Your task to perform on an android device: Open Reddit.com Image 0: 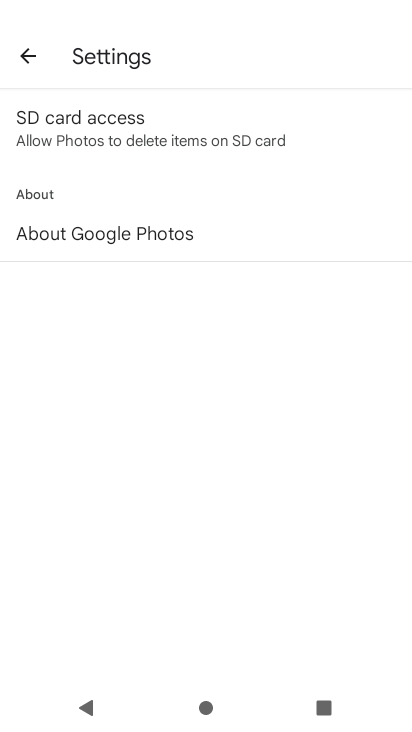
Step 0: press home button
Your task to perform on an android device: Open Reddit.com Image 1: 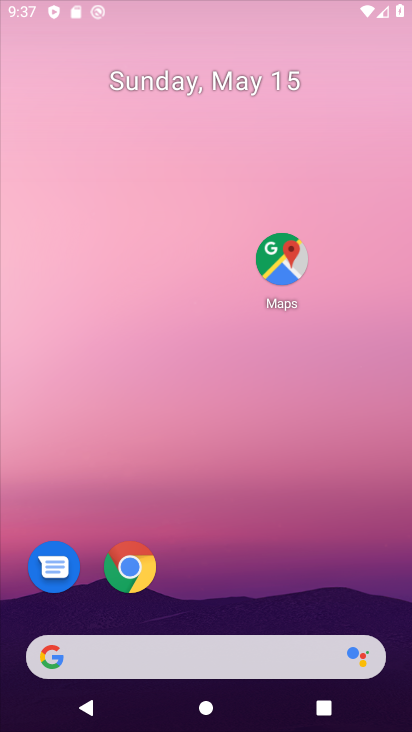
Step 1: drag from (241, 572) to (240, 80)
Your task to perform on an android device: Open Reddit.com Image 2: 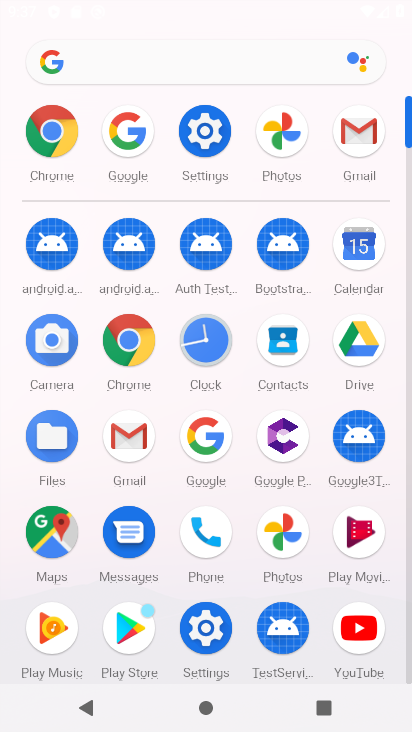
Step 2: click (212, 435)
Your task to perform on an android device: Open Reddit.com Image 3: 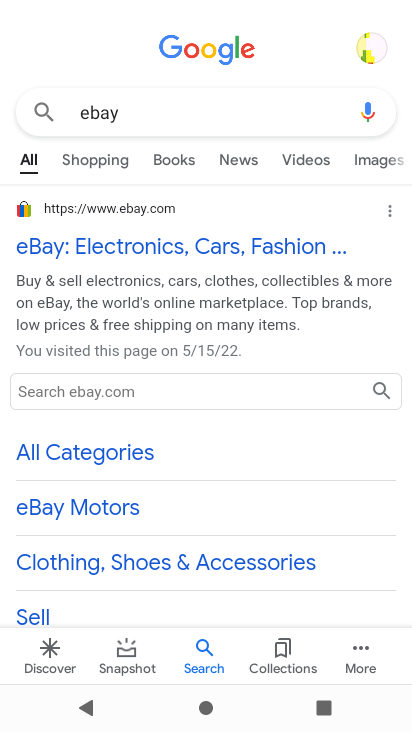
Step 3: click (143, 113)
Your task to perform on an android device: Open Reddit.com Image 4: 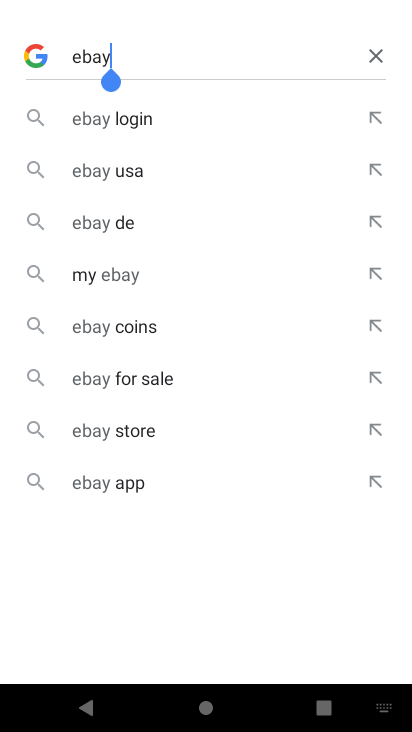
Step 4: click (372, 55)
Your task to perform on an android device: Open Reddit.com Image 5: 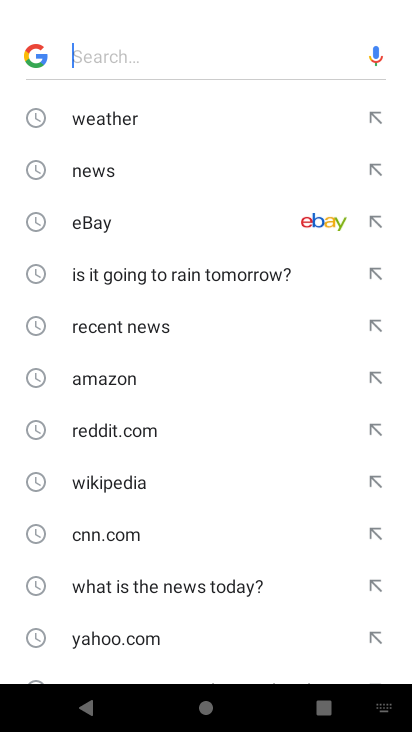
Step 5: drag from (186, 539) to (202, 274)
Your task to perform on an android device: Open Reddit.com Image 6: 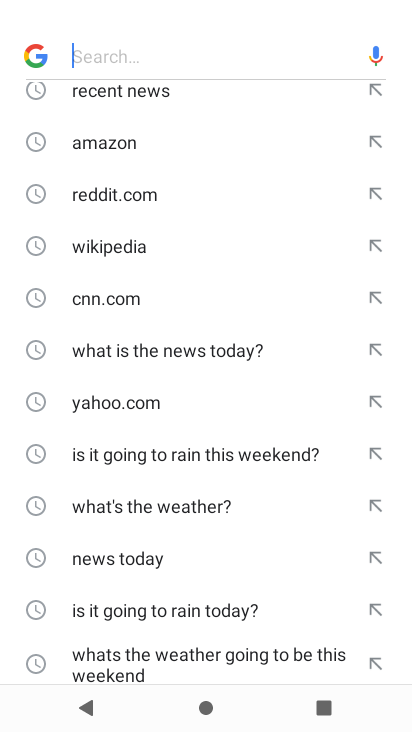
Step 6: click (111, 196)
Your task to perform on an android device: Open Reddit.com Image 7: 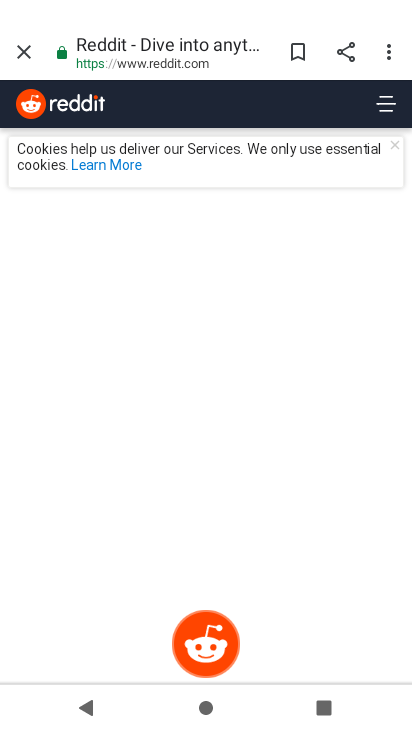
Step 7: task complete